Your task to perform on an android device: Go to Maps Image 0: 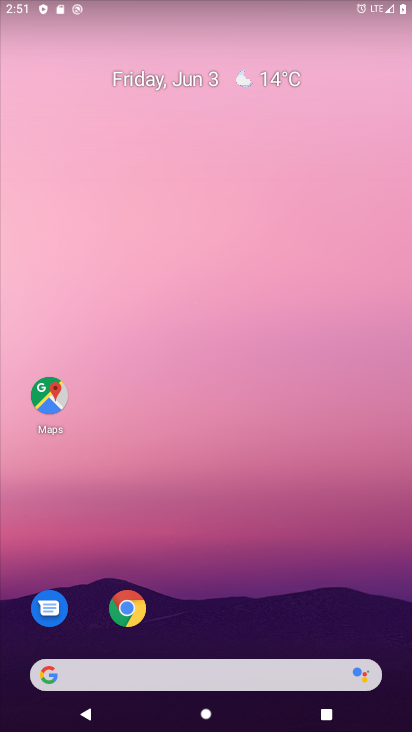
Step 0: click (51, 398)
Your task to perform on an android device: Go to Maps Image 1: 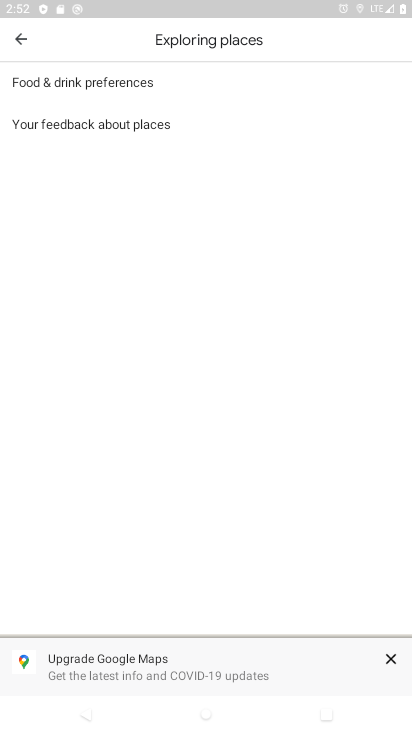
Step 1: click (17, 30)
Your task to perform on an android device: Go to Maps Image 2: 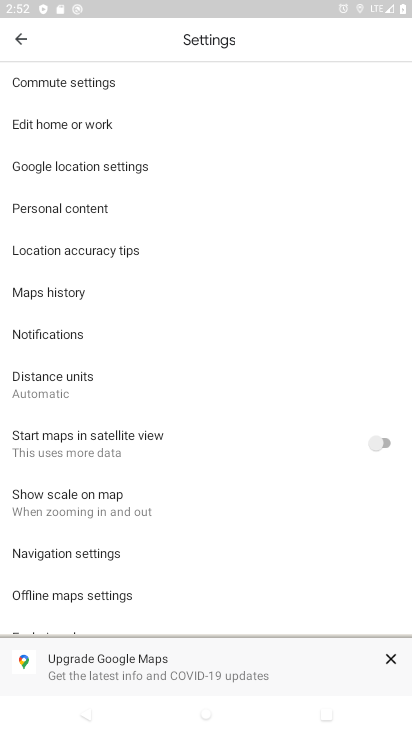
Step 2: click (17, 30)
Your task to perform on an android device: Go to Maps Image 3: 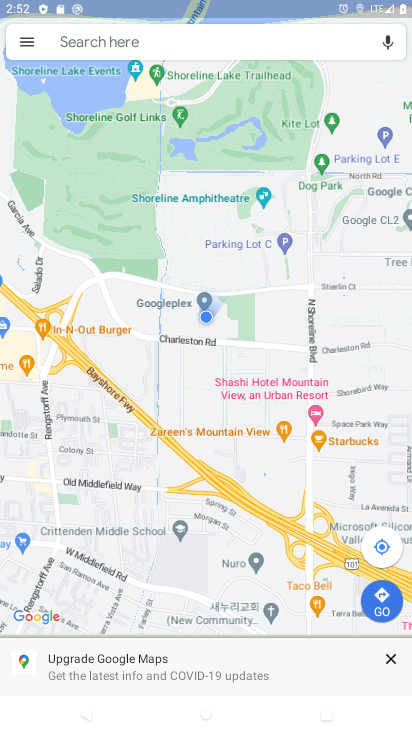
Step 3: task complete